Your task to perform on an android device: add a contact in the contacts app Image 0: 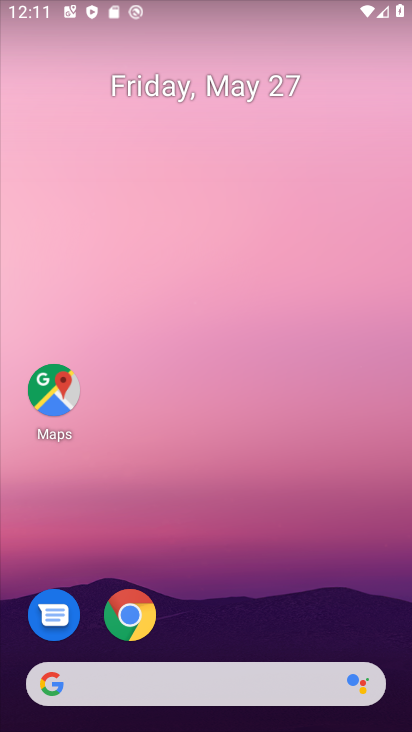
Step 0: drag from (255, 616) to (288, 15)
Your task to perform on an android device: add a contact in the contacts app Image 1: 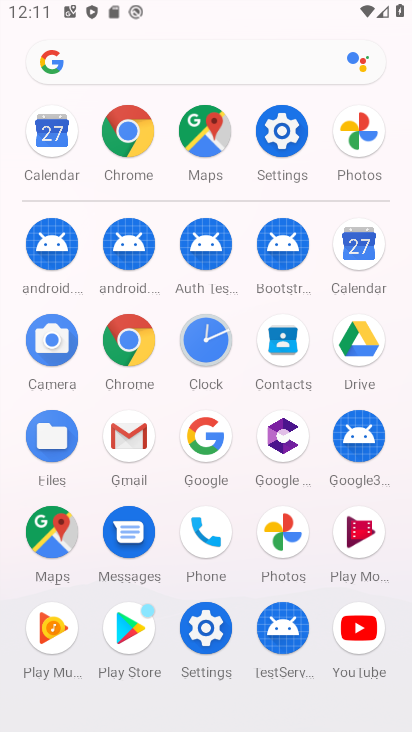
Step 1: click (300, 339)
Your task to perform on an android device: add a contact in the contacts app Image 2: 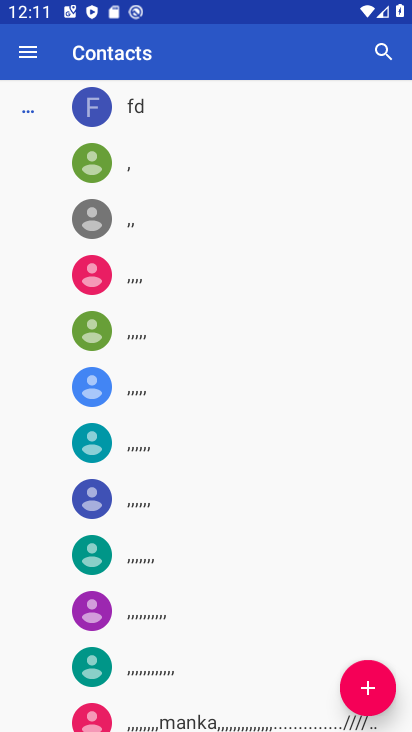
Step 2: click (363, 669)
Your task to perform on an android device: add a contact in the contacts app Image 3: 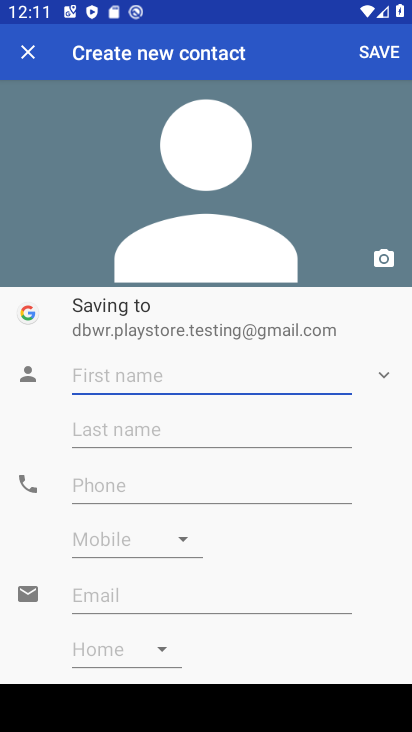
Step 3: type "dfsgfdgdg"
Your task to perform on an android device: add a contact in the contacts app Image 4: 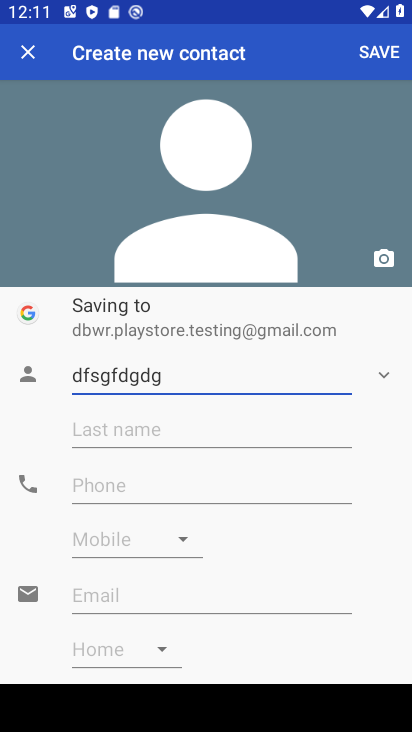
Step 4: click (149, 476)
Your task to perform on an android device: add a contact in the contacts app Image 5: 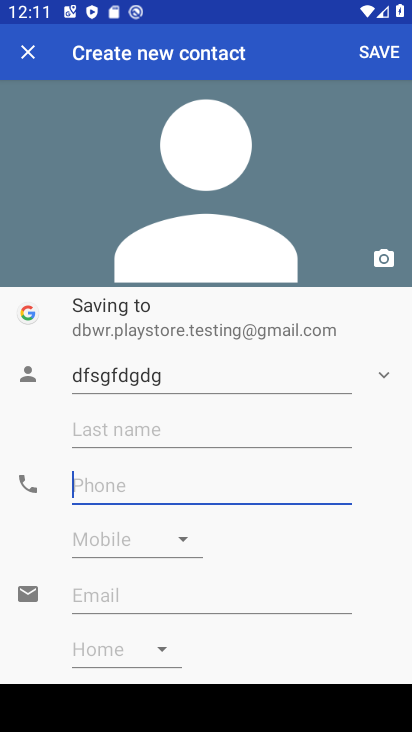
Step 5: type "8775545666"
Your task to perform on an android device: add a contact in the contacts app Image 6: 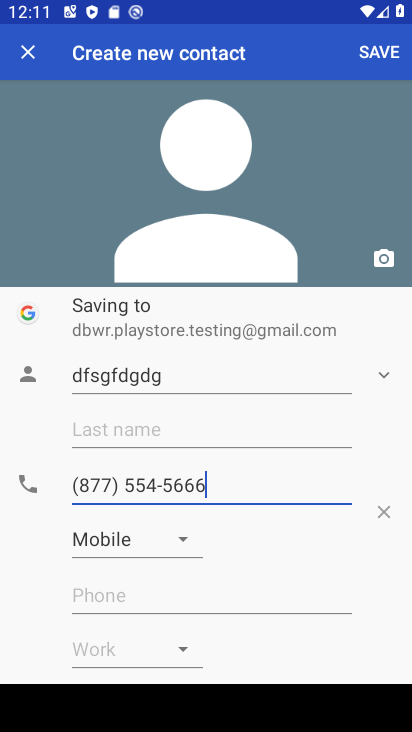
Step 6: click (374, 48)
Your task to perform on an android device: add a contact in the contacts app Image 7: 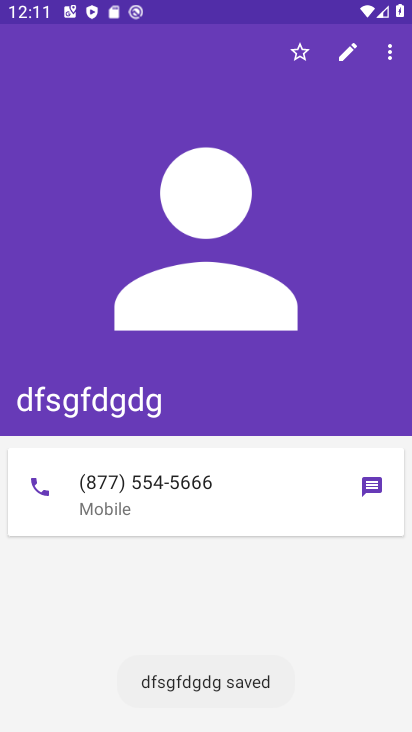
Step 7: task complete